Your task to perform on an android device: turn off improve location accuracy Image 0: 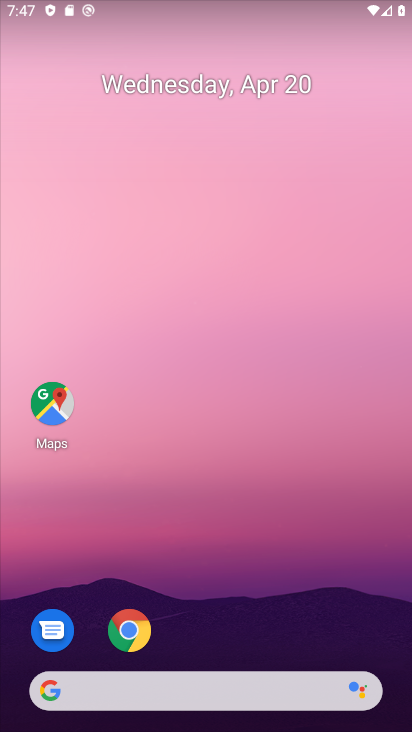
Step 0: click (253, 465)
Your task to perform on an android device: turn off improve location accuracy Image 1: 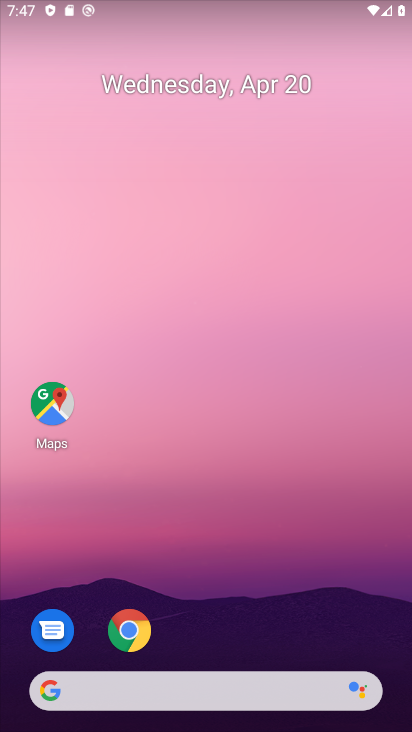
Step 1: drag from (201, 611) to (226, 296)
Your task to perform on an android device: turn off improve location accuracy Image 2: 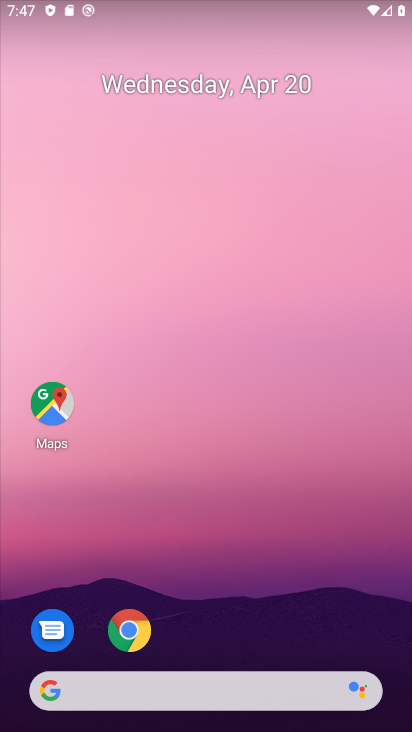
Step 2: click (226, 296)
Your task to perform on an android device: turn off improve location accuracy Image 3: 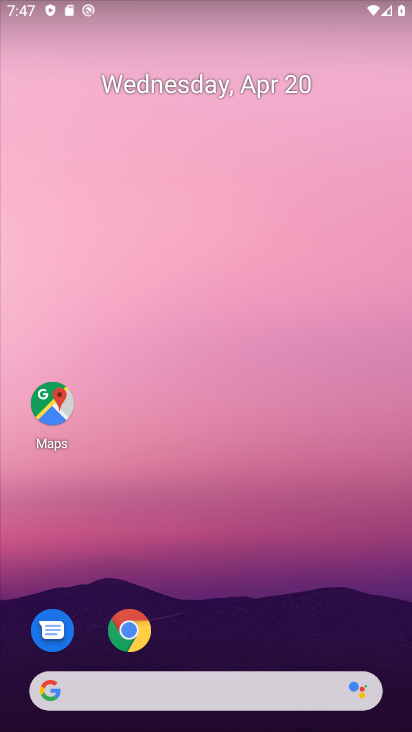
Step 3: drag from (218, 648) to (307, 203)
Your task to perform on an android device: turn off improve location accuracy Image 4: 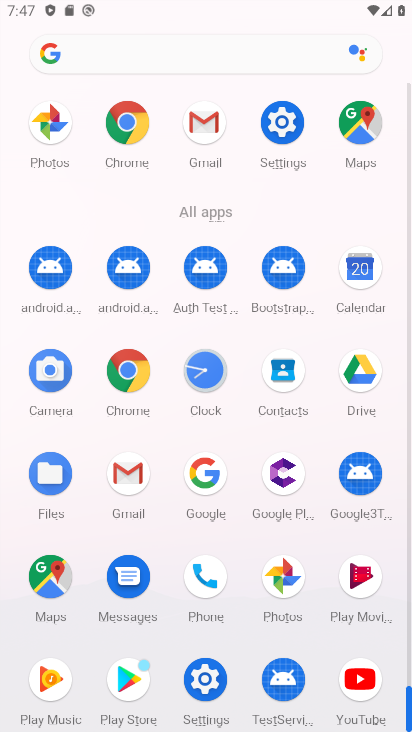
Step 4: click (293, 132)
Your task to perform on an android device: turn off improve location accuracy Image 5: 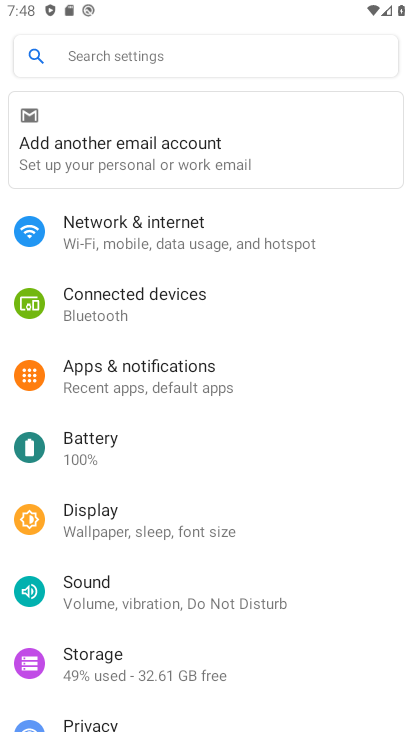
Step 5: drag from (266, 552) to (269, 220)
Your task to perform on an android device: turn off improve location accuracy Image 6: 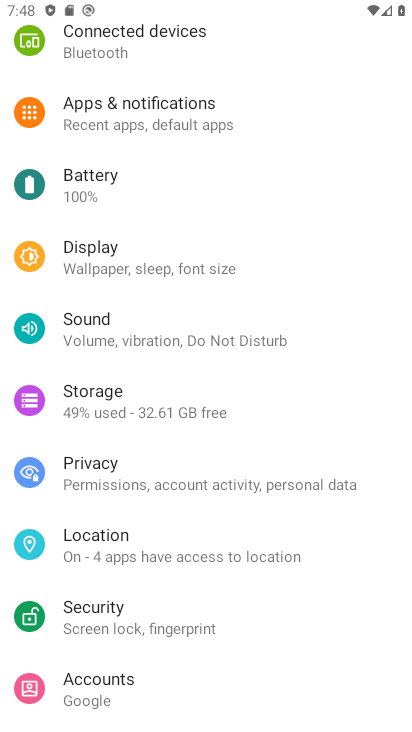
Step 6: click (198, 561)
Your task to perform on an android device: turn off improve location accuracy Image 7: 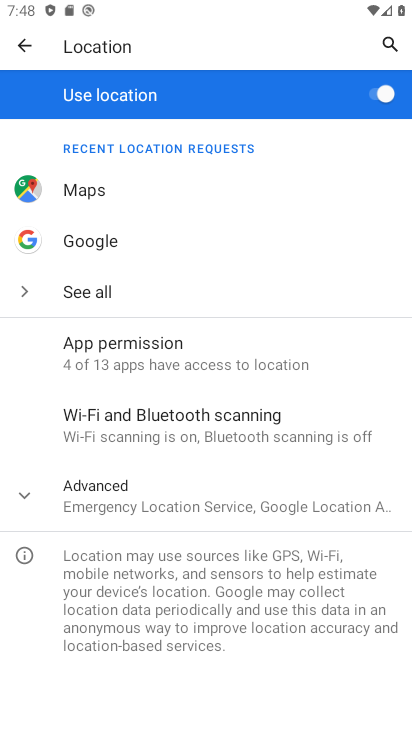
Step 7: click (269, 500)
Your task to perform on an android device: turn off improve location accuracy Image 8: 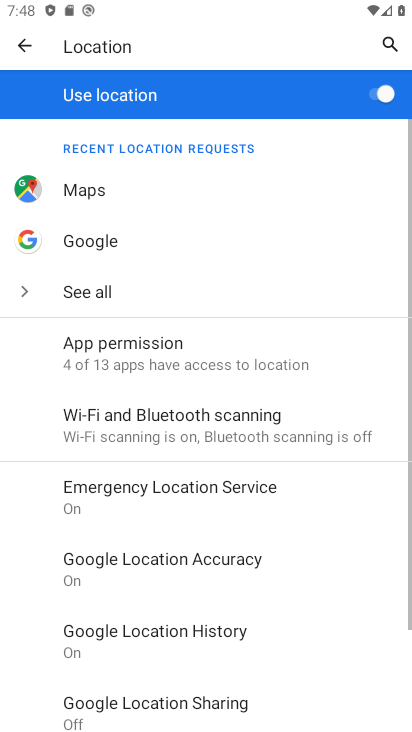
Step 8: drag from (275, 491) to (253, 201)
Your task to perform on an android device: turn off improve location accuracy Image 9: 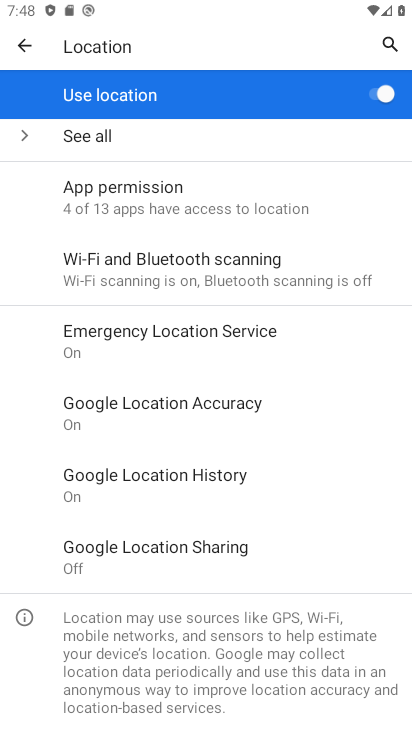
Step 9: click (211, 422)
Your task to perform on an android device: turn off improve location accuracy Image 10: 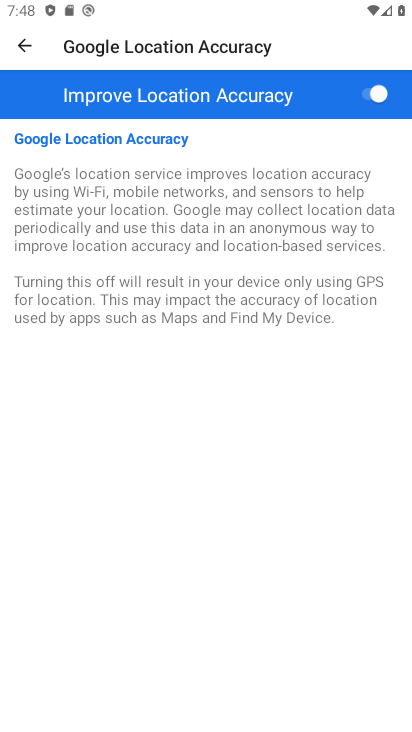
Step 10: click (363, 90)
Your task to perform on an android device: turn off improve location accuracy Image 11: 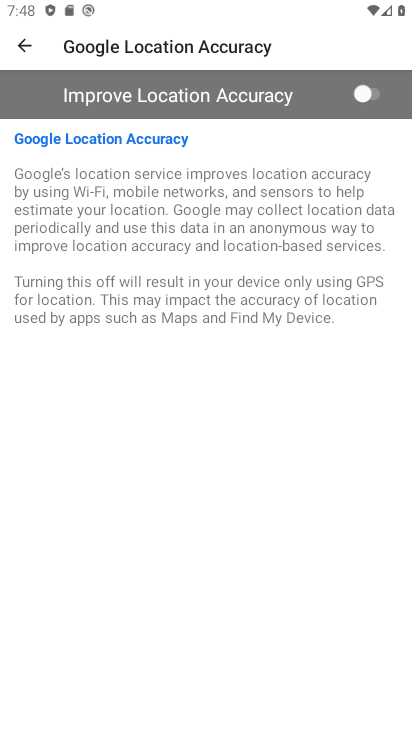
Step 11: task complete